Your task to perform on an android device: empty trash in the gmail app Image 0: 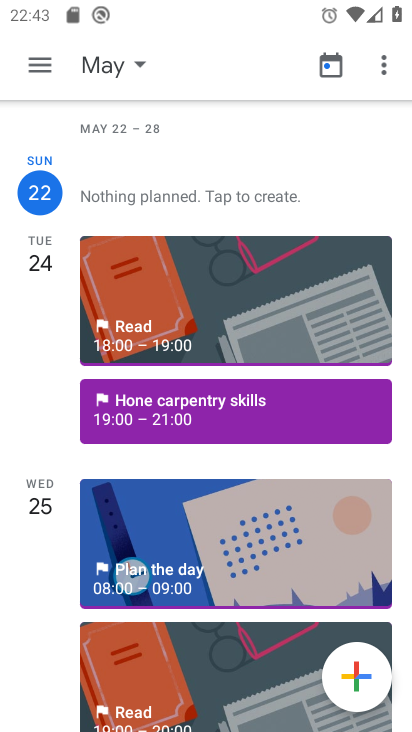
Step 0: press home button
Your task to perform on an android device: empty trash in the gmail app Image 1: 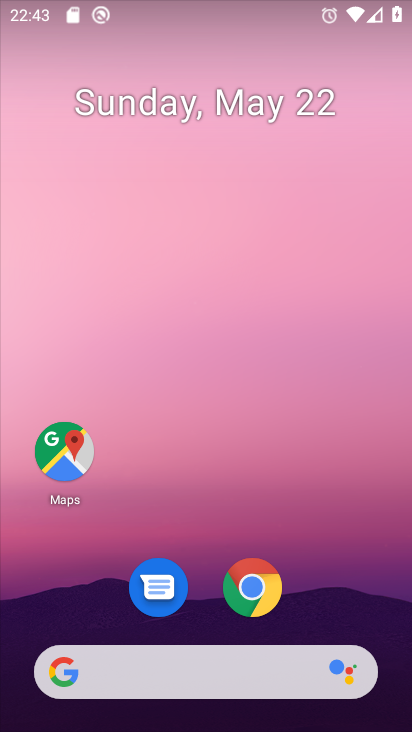
Step 1: drag from (311, 470) to (299, 72)
Your task to perform on an android device: empty trash in the gmail app Image 2: 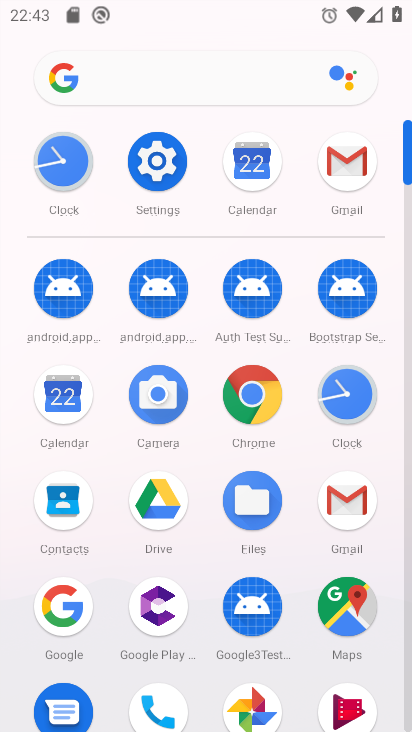
Step 2: click (341, 162)
Your task to perform on an android device: empty trash in the gmail app Image 3: 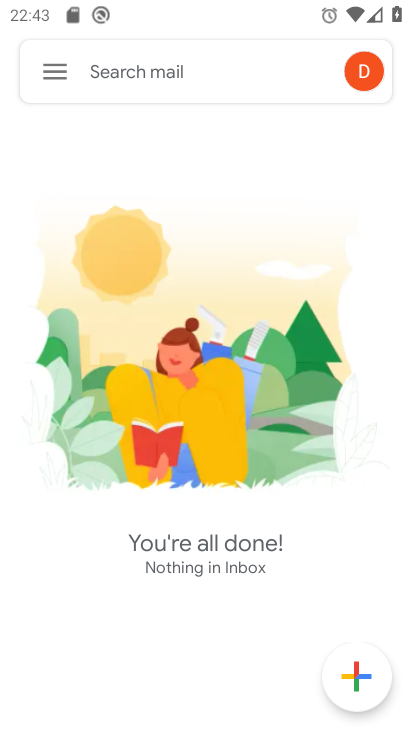
Step 3: click (55, 56)
Your task to perform on an android device: empty trash in the gmail app Image 4: 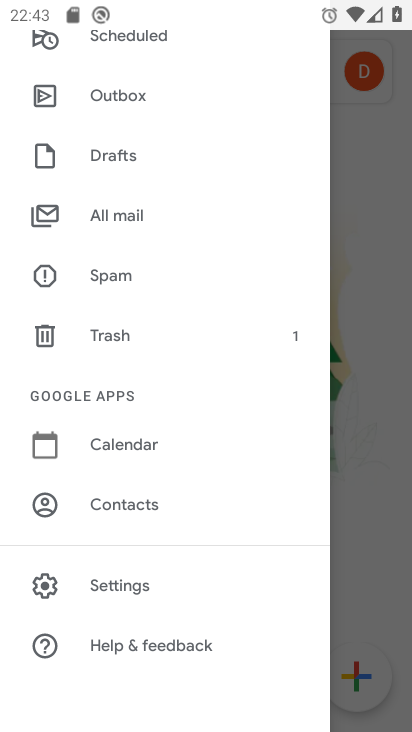
Step 4: click (105, 329)
Your task to perform on an android device: empty trash in the gmail app Image 5: 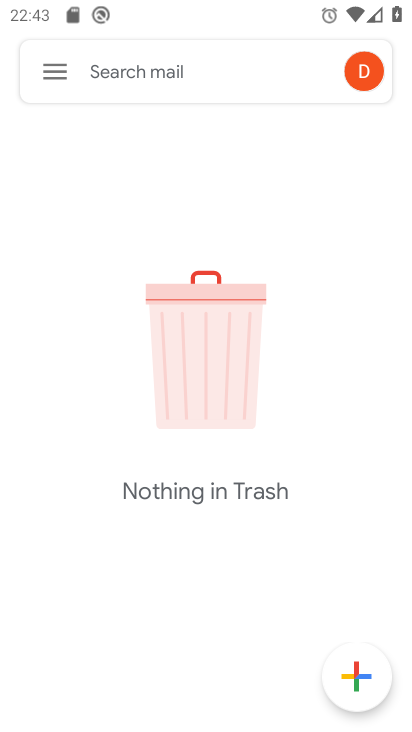
Step 5: task complete